Your task to perform on an android device: make emails show in primary in the gmail app Image 0: 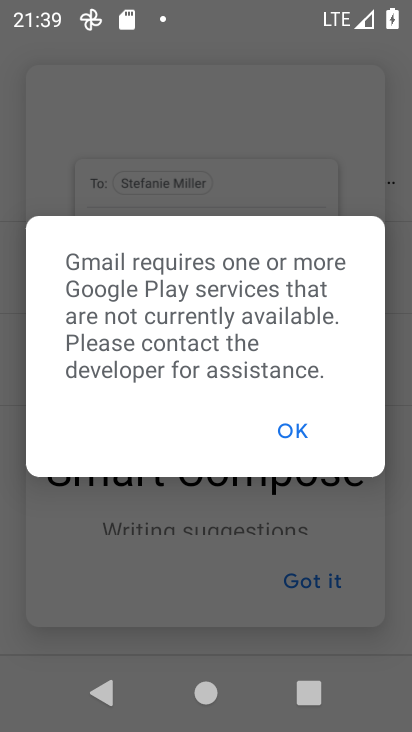
Step 0: press home button
Your task to perform on an android device: make emails show in primary in the gmail app Image 1: 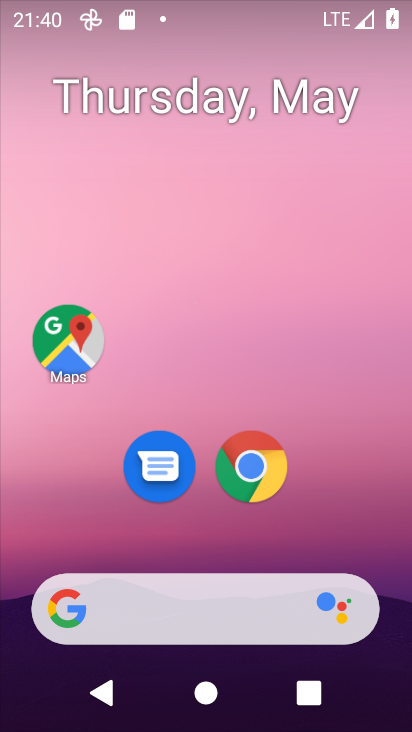
Step 1: drag from (361, 523) to (361, 91)
Your task to perform on an android device: make emails show in primary in the gmail app Image 2: 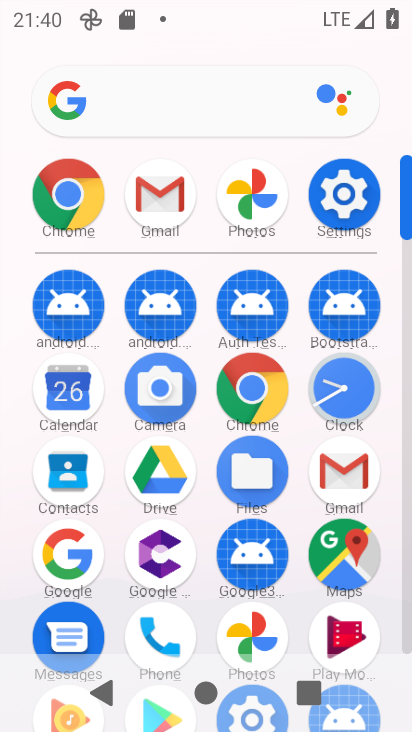
Step 2: click (335, 478)
Your task to perform on an android device: make emails show in primary in the gmail app Image 3: 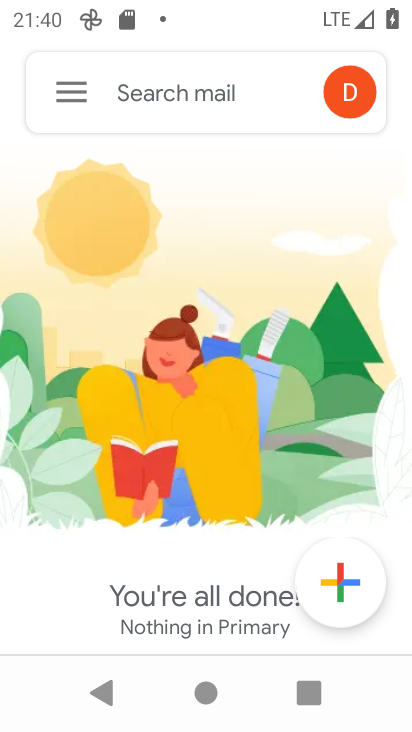
Step 3: click (48, 107)
Your task to perform on an android device: make emails show in primary in the gmail app Image 4: 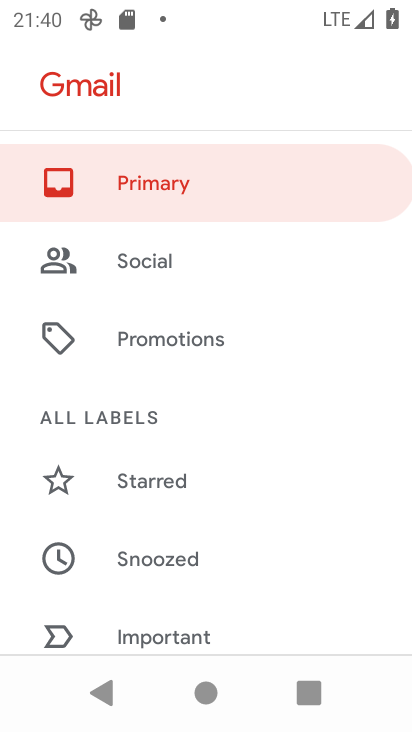
Step 4: task complete